Your task to perform on an android device: see sites visited before in the chrome app Image 0: 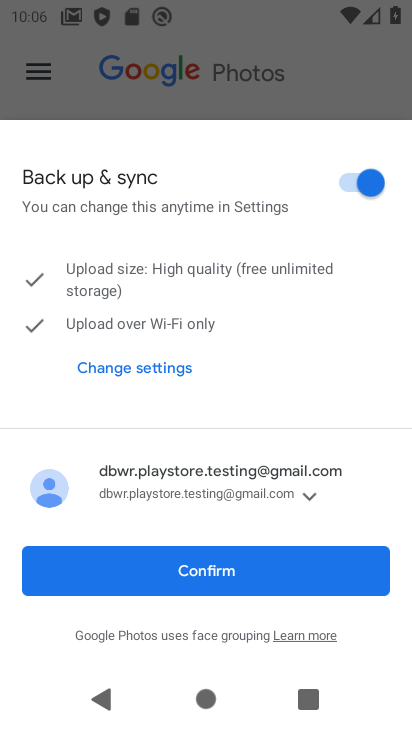
Step 0: press home button
Your task to perform on an android device: see sites visited before in the chrome app Image 1: 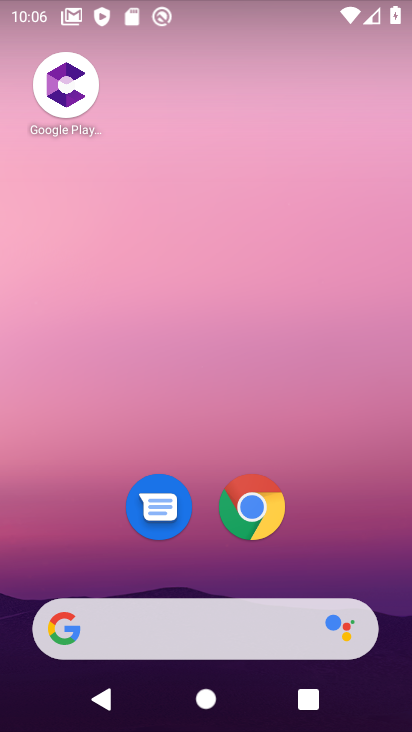
Step 1: click (251, 515)
Your task to perform on an android device: see sites visited before in the chrome app Image 2: 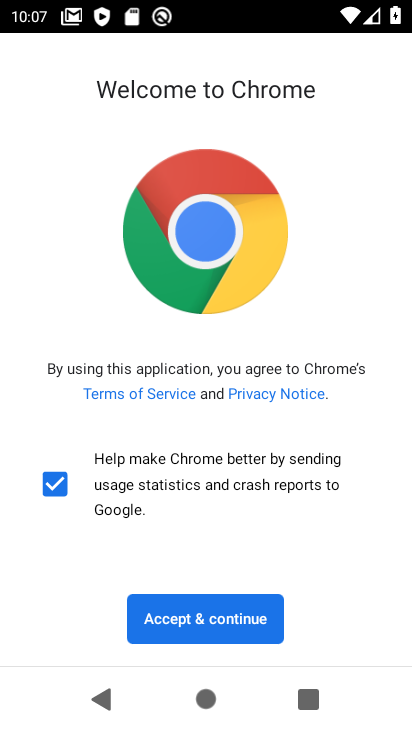
Step 2: click (183, 596)
Your task to perform on an android device: see sites visited before in the chrome app Image 3: 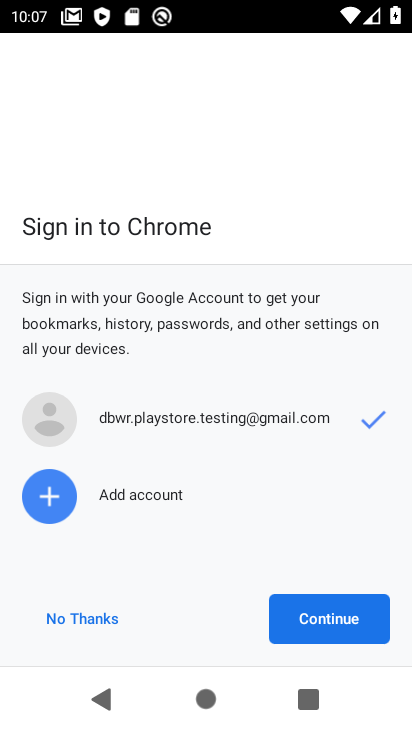
Step 3: click (114, 621)
Your task to perform on an android device: see sites visited before in the chrome app Image 4: 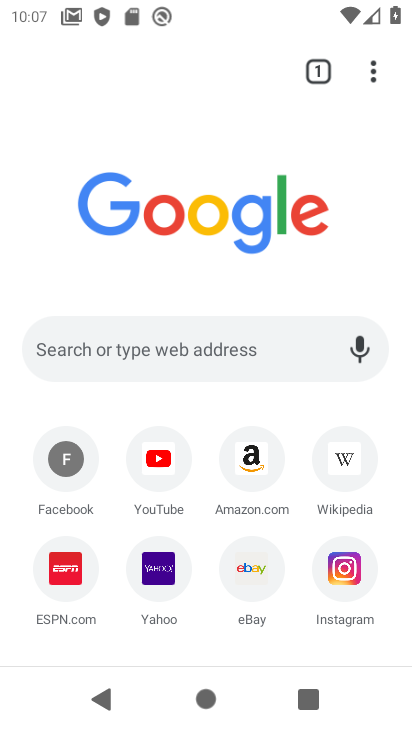
Step 4: task complete